Your task to perform on an android device: Go to settings Image 0: 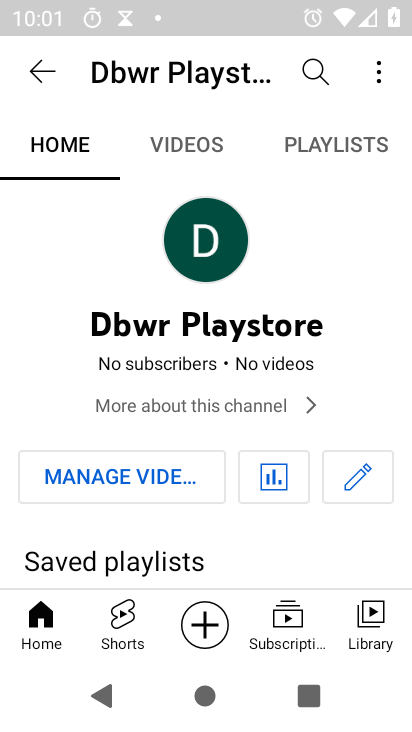
Step 0: press home button
Your task to perform on an android device: Go to settings Image 1: 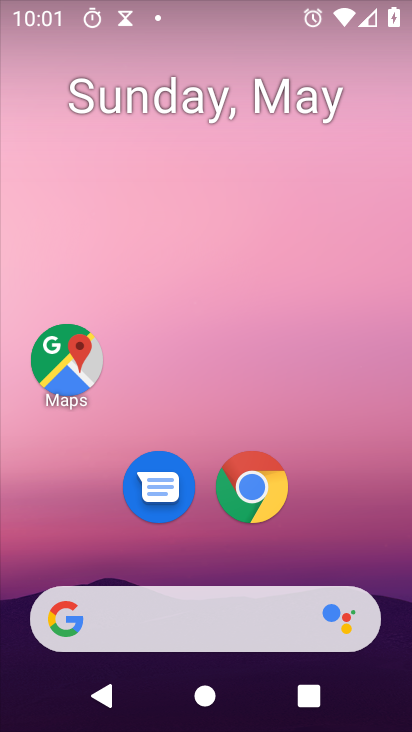
Step 1: drag from (324, 523) to (307, 37)
Your task to perform on an android device: Go to settings Image 2: 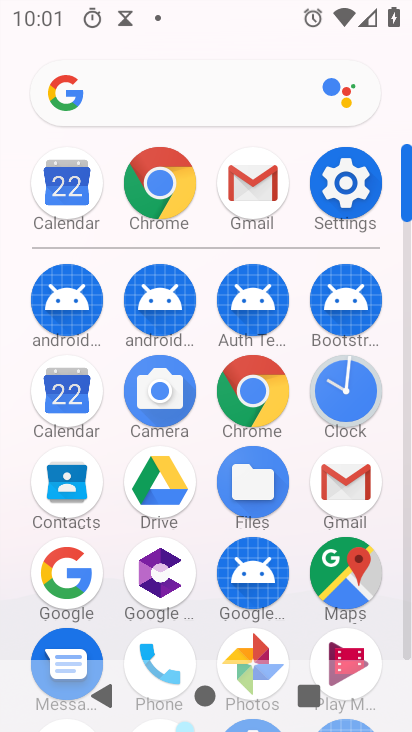
Step 2: click (324, 197)
Your task to perform on an android device: Go to settings Image 3: 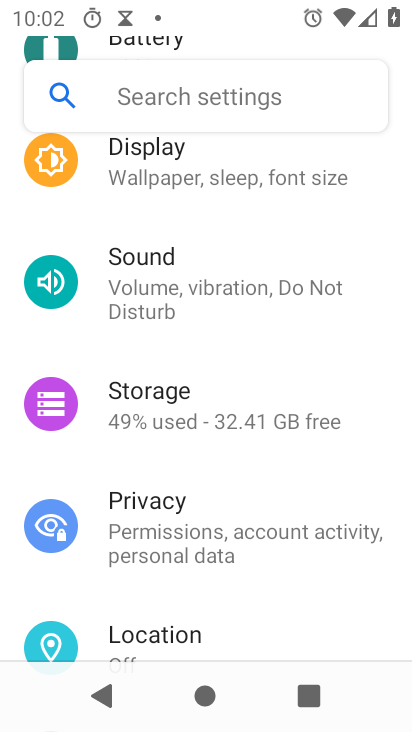
Step 3: task complete